Your task to perform on an android device: delete a single message in the gmail app Image 0: 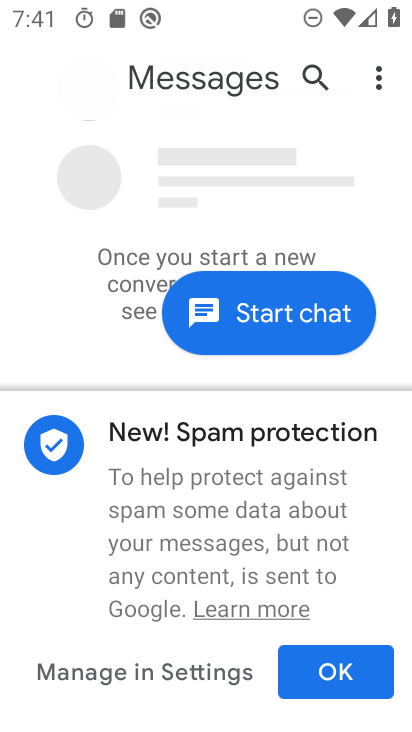
Step 0: press home button
Your task to perform on an android device: delete a single message in the gmail app Image 1: 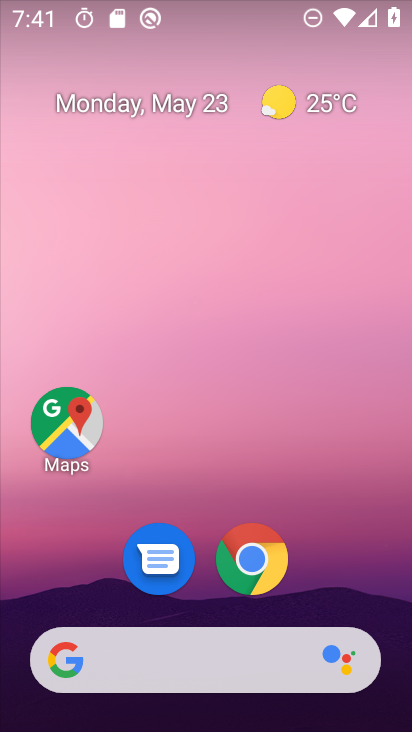
Step 1: drag from (379, 649) to (269, 8)
Your task to perform on an android device: delete a single message in the gmail app Image 2: 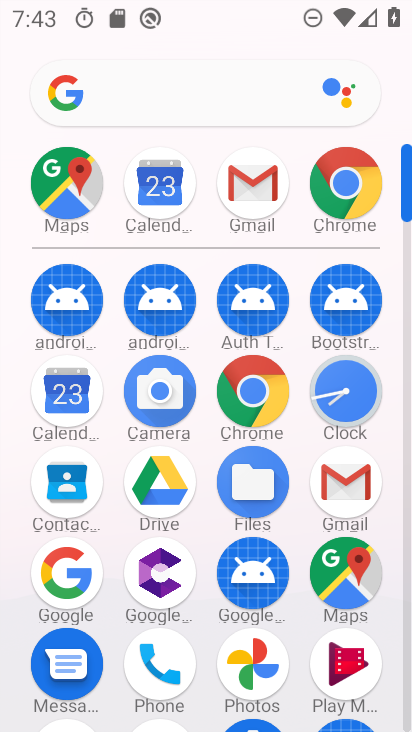
Step 2: click (239, 214)
Your task to perform on an android device: delete a single message in the gmail app Image 3: 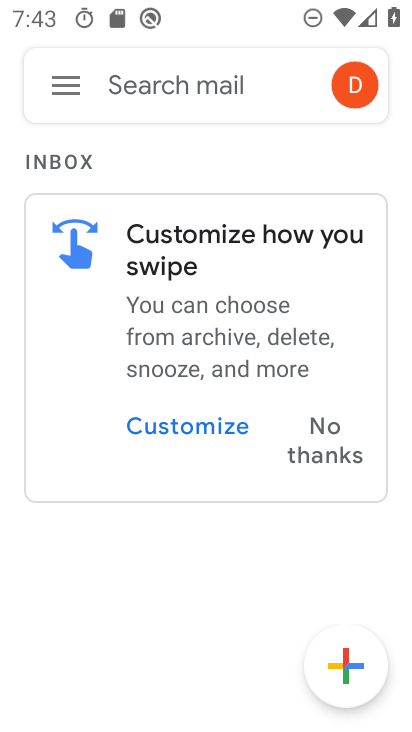
Step 3: task complete